Your task to perform on an android device: turn smart compose on in the gmail app Image 0: 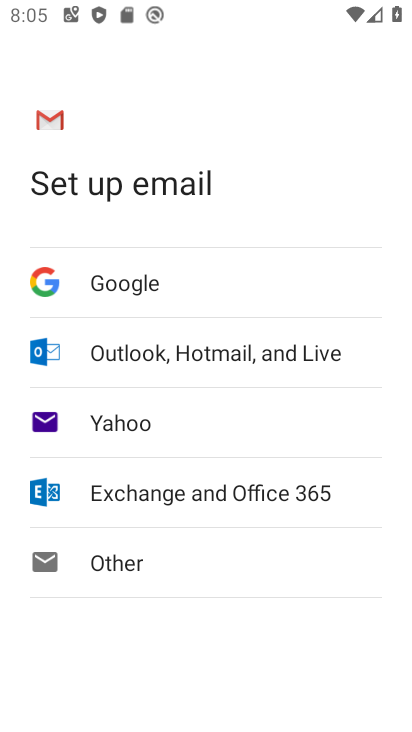
Step 0: press home button
Your task to perform on an android device: turn smart compose on in the gmail app Image 1: 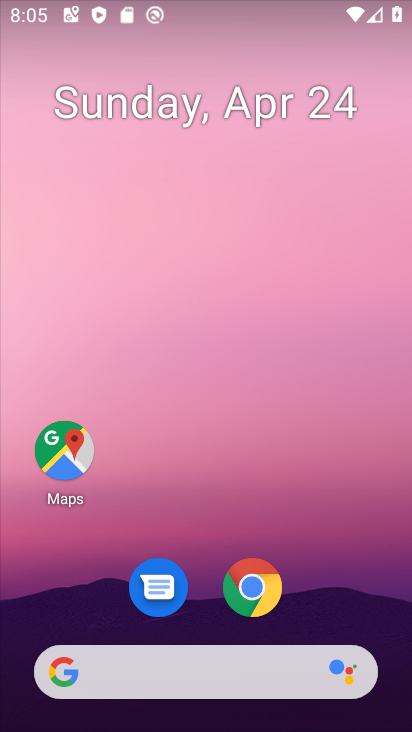
Step 1: drag from (362, 581) to (284, 6)
Your task to perform on an android device: turn smart compose on in the gmail app Image 2: 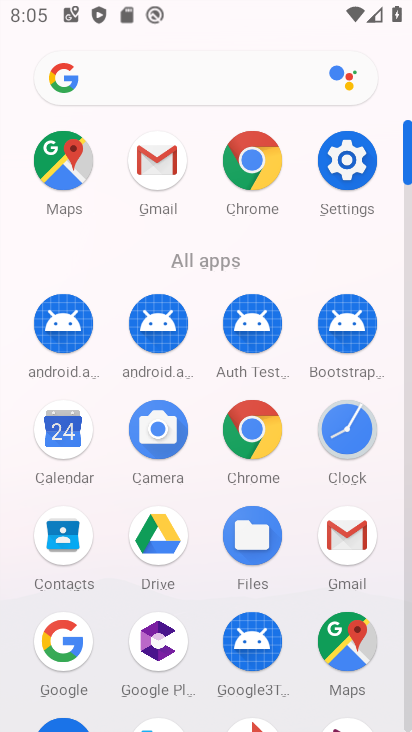
Step 2: click (367, 547)
Your task to perform on an android device: turn smart compose on in the gmail app Image 3: 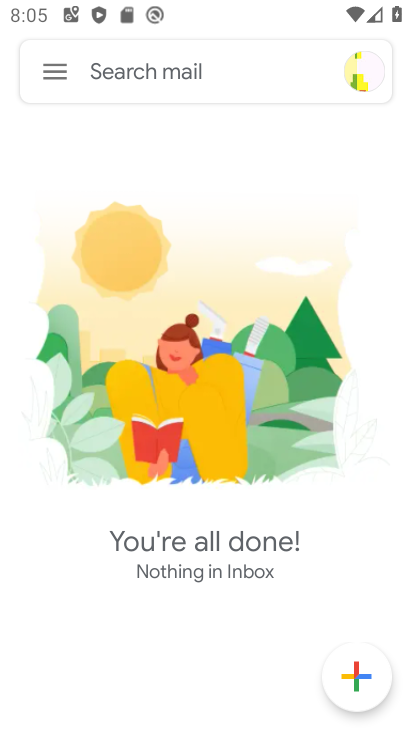
Step 3: click (63, 80)
Your task to perform on an android device: turn smart compose on in the gmail app Image 4: 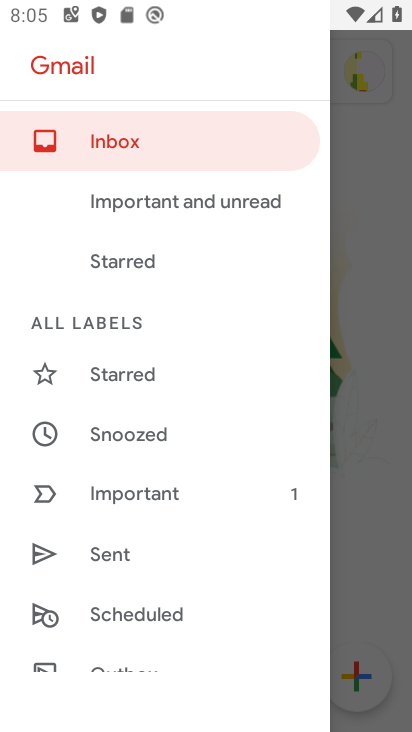
Step 4: drag from (159, 591) to (128, 155)
Your task to perform on an android device: turn smart compose on in the gmail app Image 5: 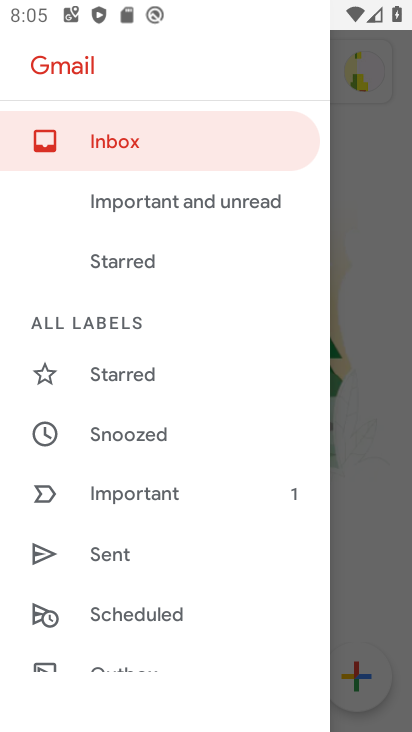
Step 5: drag from (158, 543) to (198, 153)
Your task to perform on an android device: turn smart compose on in the gmail app Image 6: 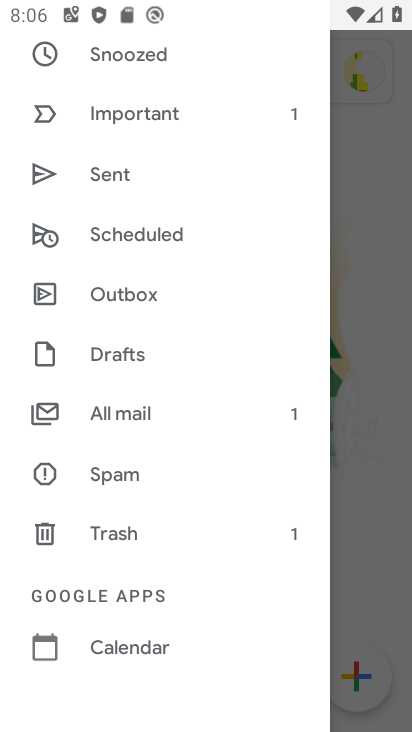
Step 6: drag from (172, 537) to (157, 130)
Your task to perform on an android device: turn smart compose on in the gmail app Image 7: 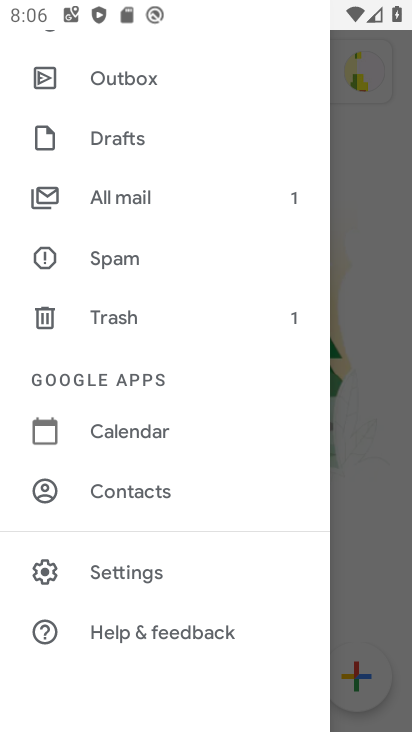
Step 7: click (156, 569)
Your task to perform on an android device: turn smart compose on in the gmail app Image 8: 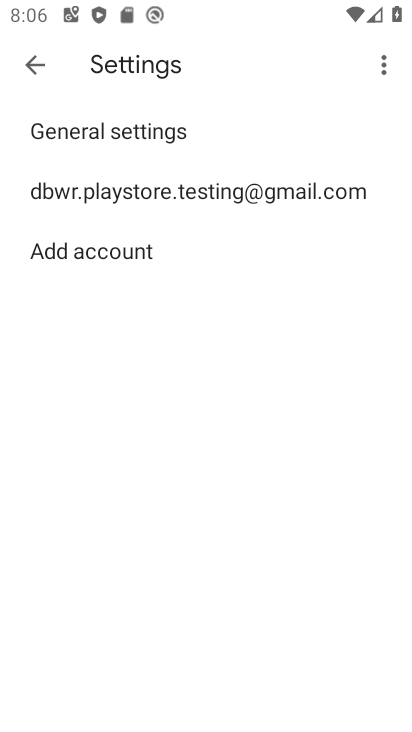
Step 8: click (188, 191)
Your task to perform on an android device: turn smart compose on in the gmail app Image 9: 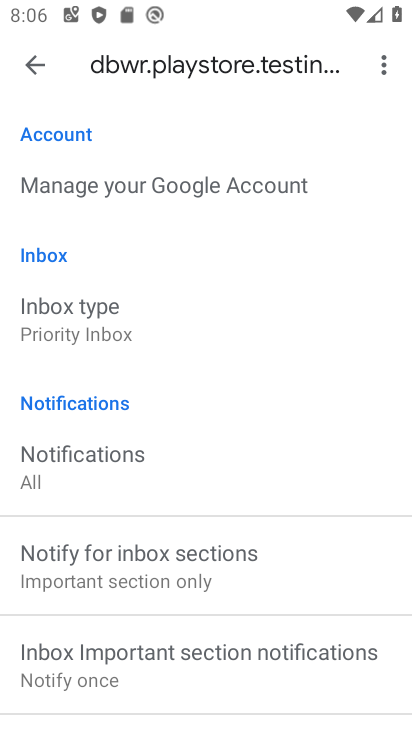
Step 9: task complete